Your task to perform on an android device: move an email to a new category in the gmail app Image 0: 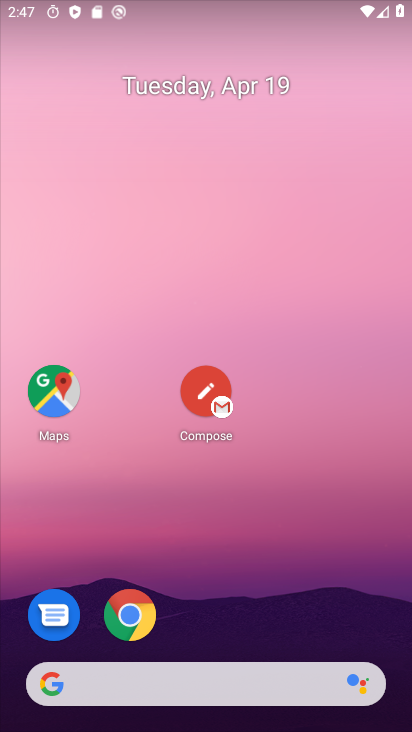
Step 0: drag from (115, 578) to (142, 1)
Your task to perform on an android device: move an email to a new category in the gmail app Image 1: 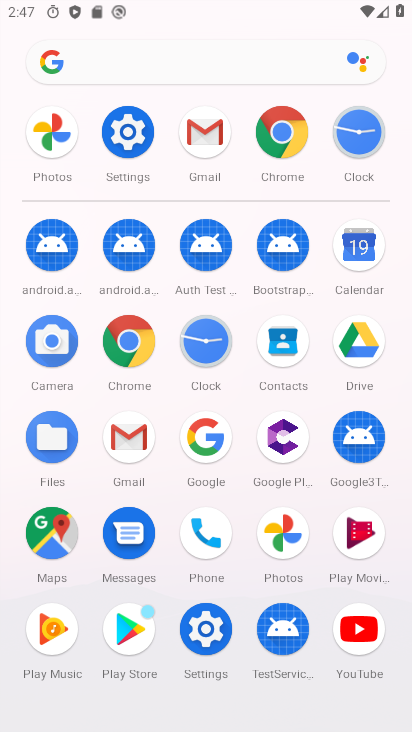
Step 1: click (137, 434)
Your task to perform on an android device: move an email to a new category in the gmail app Image 2: 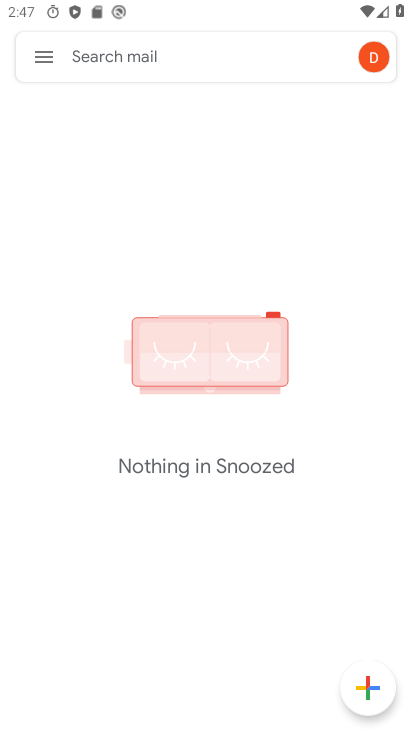
Step 2: click (37, 61)
Your task to perform on an android device: move an email to a new category in the gmail app Image 3: 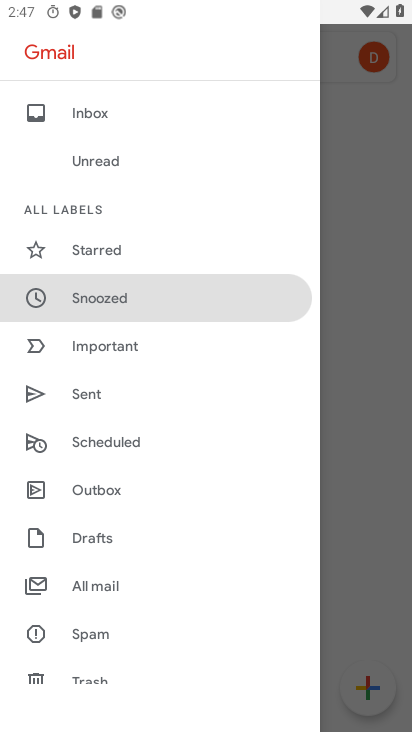
Step 3: click (93, 114)
Your task to perform on an android device: move an email to a new category in the gmail app Image 4: 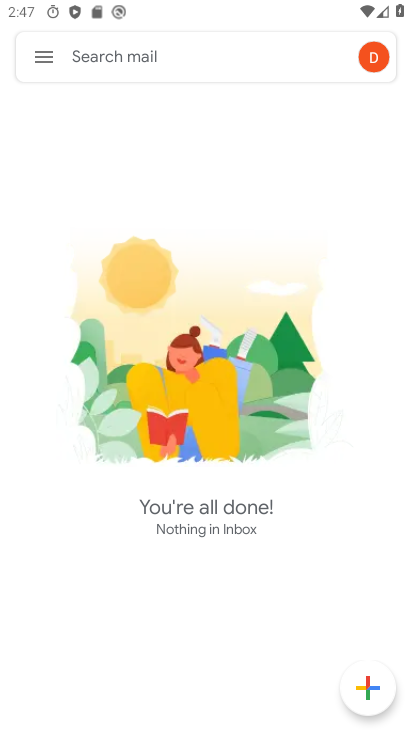
Step 4: task complete